Your task to perform on an android device: Go to calendar. Show me events next week Image 0: 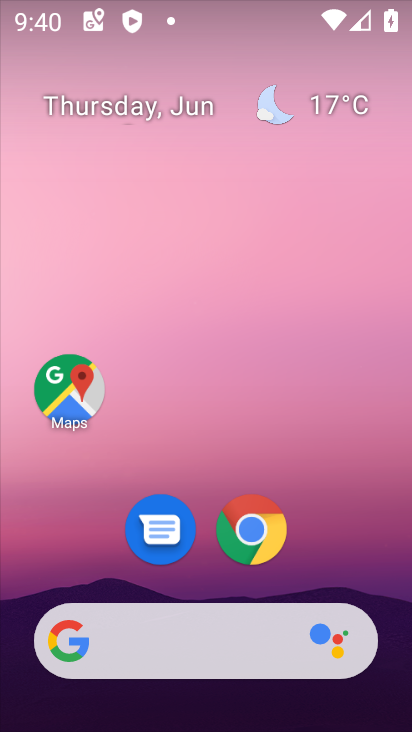
Step 0: drag from (377, 583) to (301, 66)
Your task to perform on an android device: Go to calendar. Show me events next week Image 1: 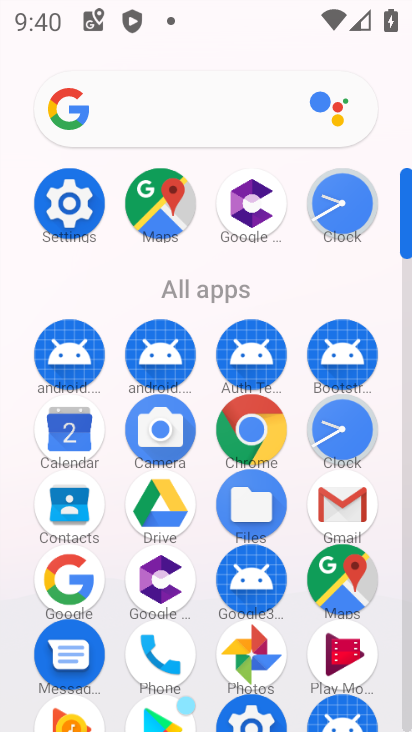
Step 1: click (405, 681)
Your task to perform on an android device: Go to calendar. Show me events next week Image 2: 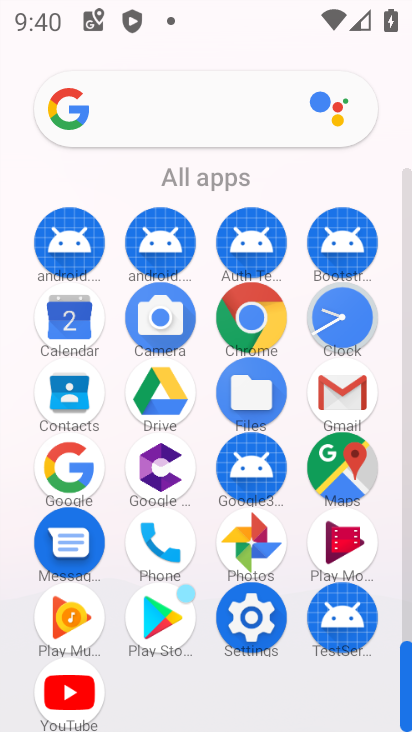
Step 2: click (68, 322)
Your task to perform on an android device: Go to calendar. Show me events next week Image 3: 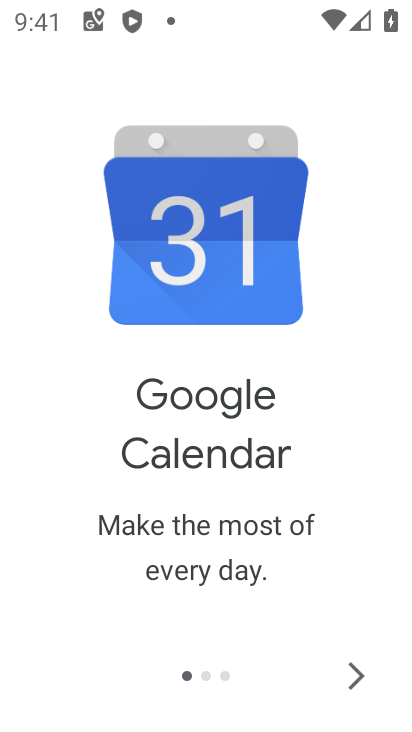
Step 3: click (359, 675)
Your task to perform on an android device: Go to calendar. Show me events next week Image 4: 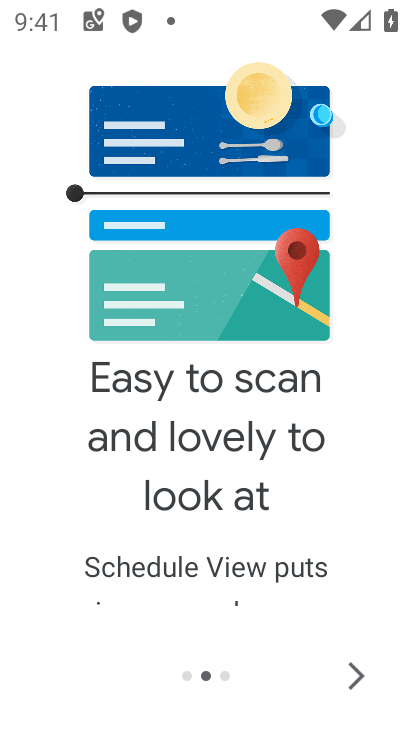
Step 4: click (359, 675)
Your task to perform on an android device: Go to calendar. Show me events next week Image 5: 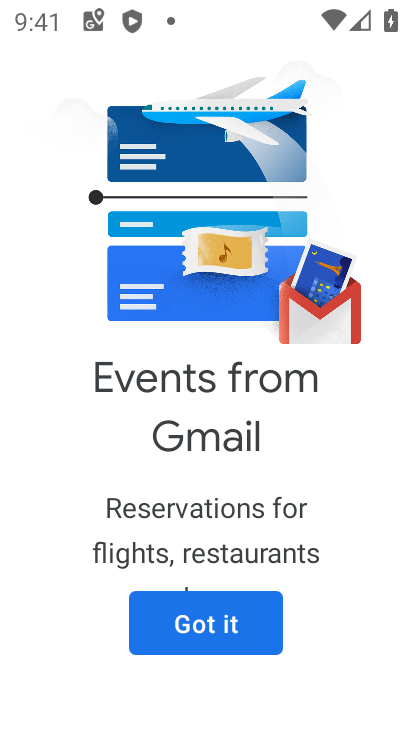
Step 5: click (206, 628)
Your task to perform on an android device: Go to calendar. Show me events next week Image 6: 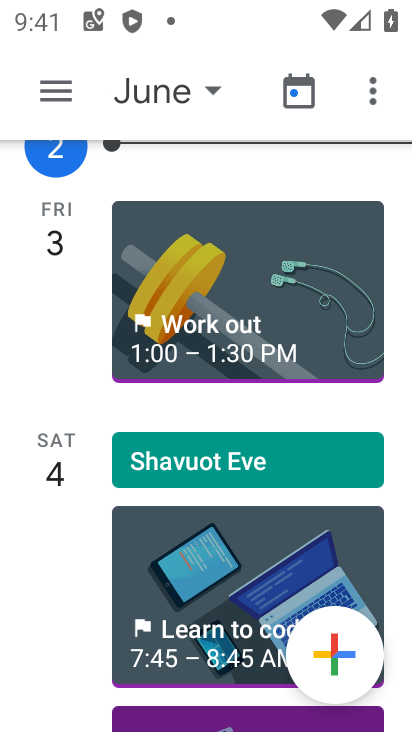
Step 6: click (49, 78)
Your task to perform on an android device: Go to calendar. Show me events next week Image 7: 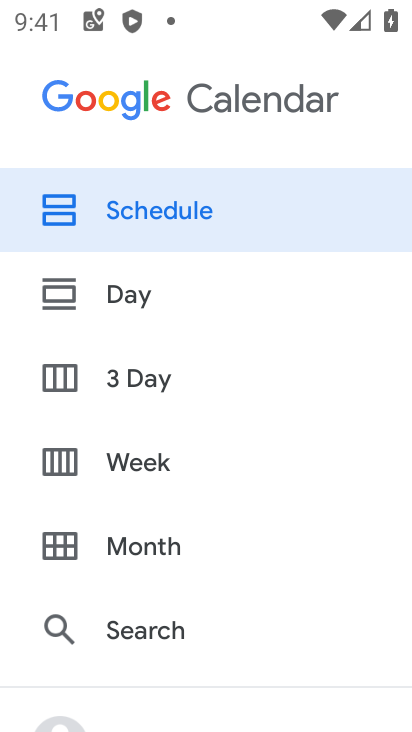
Step 7: click (159, 462)
Your task to perform on an android device: Go to calendar. Show me events next week Image 8: 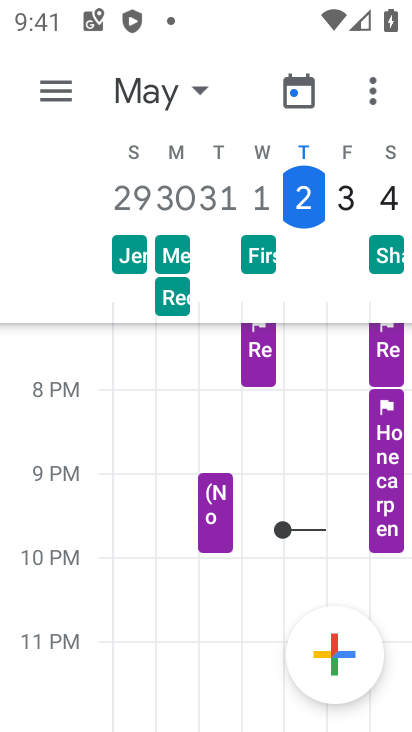
Step 8: task complete